Your task to perform on an android device: Go to battery settings Image 0: 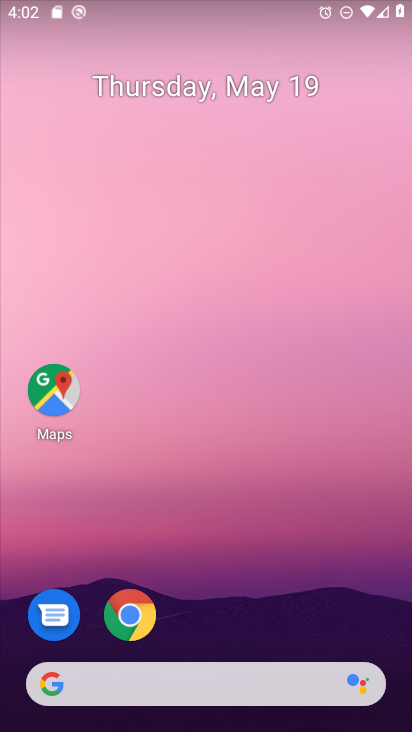
Step 0: drag from (218, 603) to (287, 1)
Your task to perform on an android device: Go to battery settings Image 1: 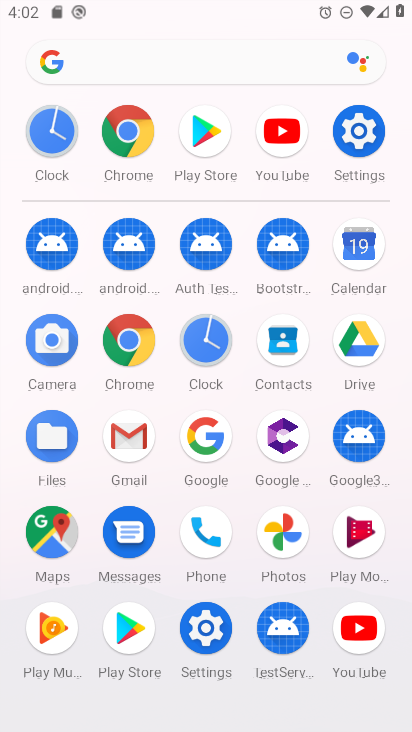
Step 1: click (353, 163)
Your task to perform on an android device: Go to battery settings Image 2: 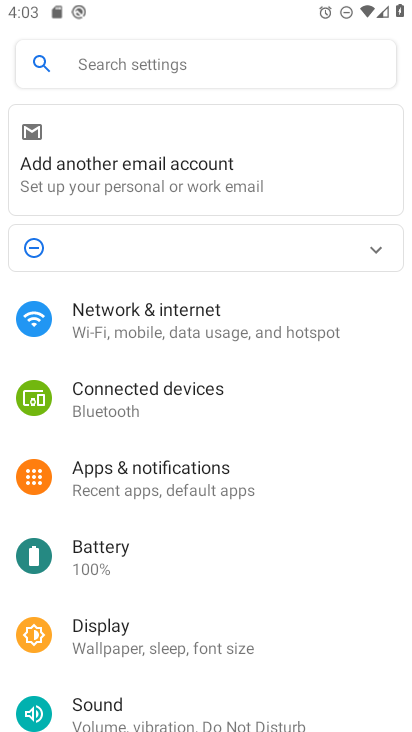
Step 2: click (253, 567)
Your task to perform on an android device: Go to battery settings Image 3: 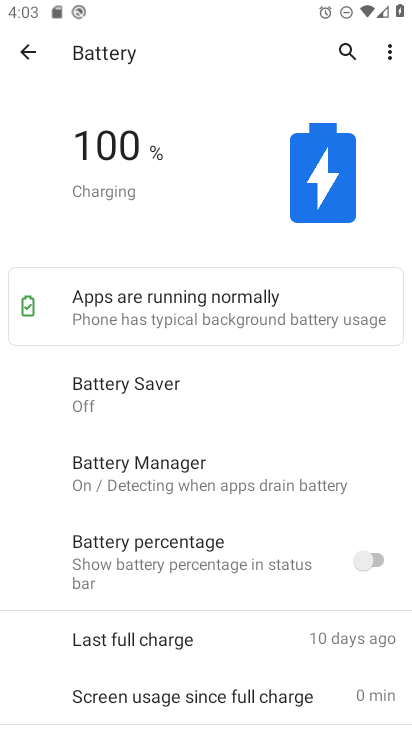
Step 3: task complete